Your task to perform on an android device: turn off javascript in the chrome app Image 0: 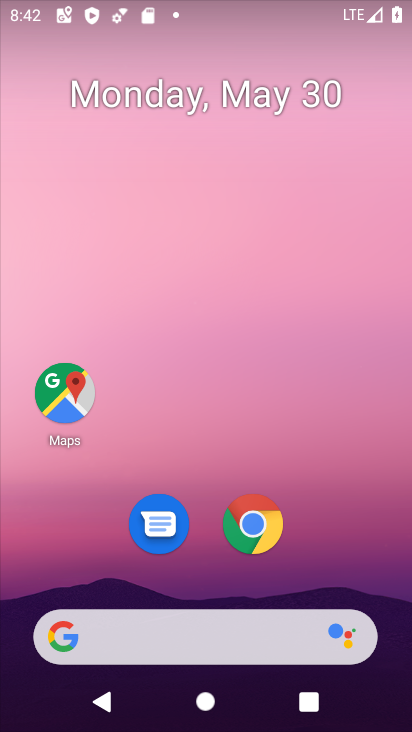
Step 0: click (247, 526)
Your task to perform on an android device: turn off javascript in the chrome app Image 1: 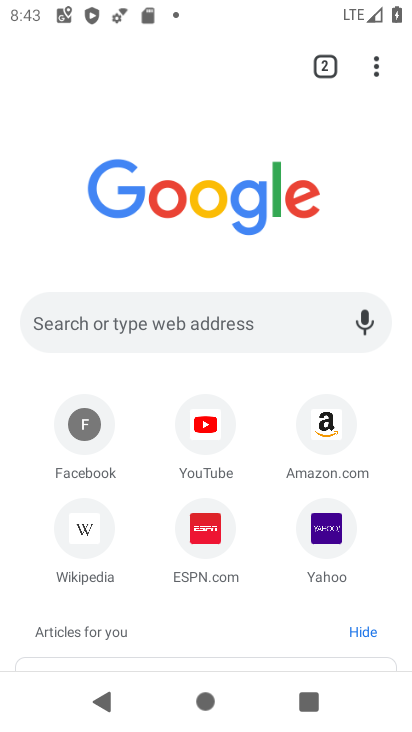
Step 1: click (376, 68)
Your task to perform on an android device: turn off javascript in the chrome app Image 2: 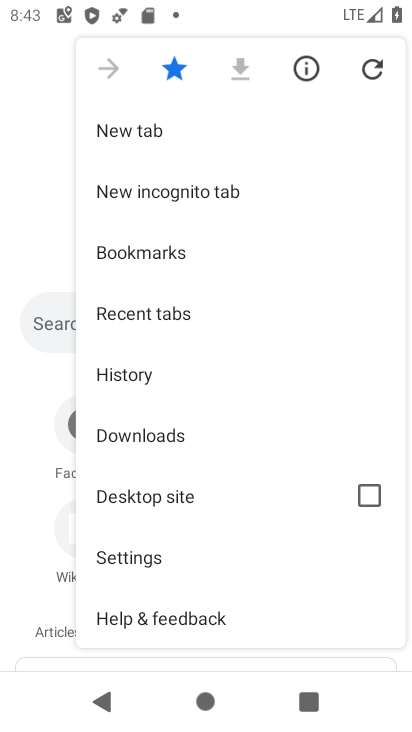
Step 2: click (173, 566)
Your task to perform on an android device: turn off javascript in the chrome app Image 3: 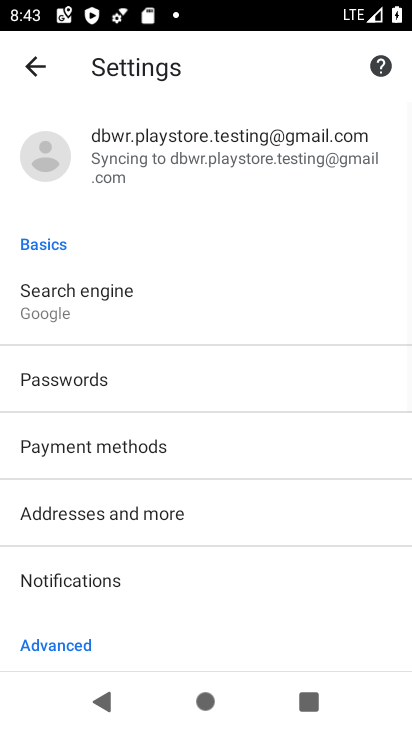
Step 3: drag from (218, 517) to (255, 150)
Your task to perform on an android device: turn off javascript in the chrome app Image 4: 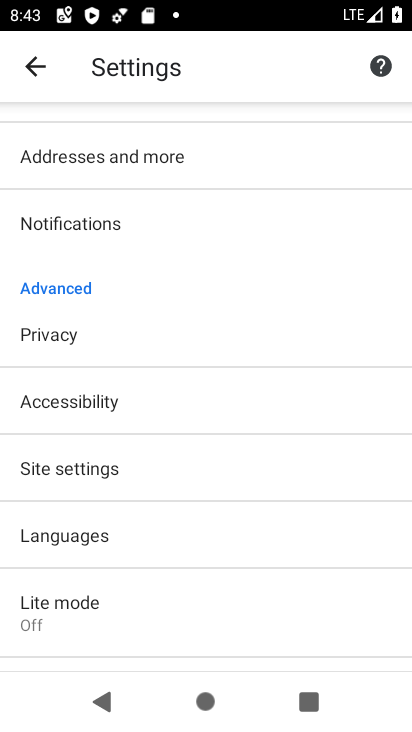
Step 4: click (151, 461)
Your task to perform on an android device: turn off javascript in the chrome app Image 5: 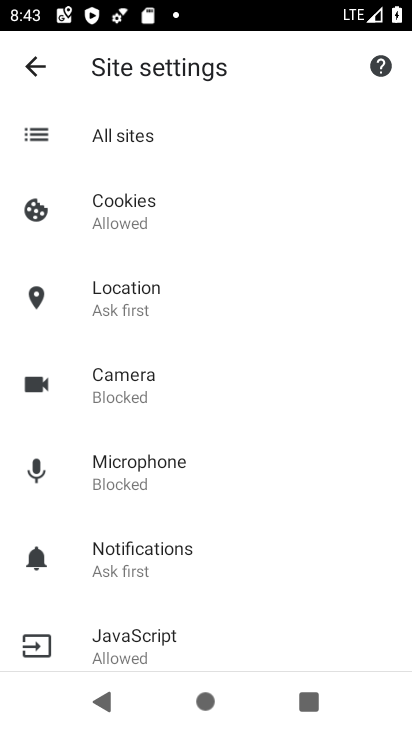
Step 5: click (181, 616)
Your task to perform on an android device: turn off javascript in the chrome app Image 6: 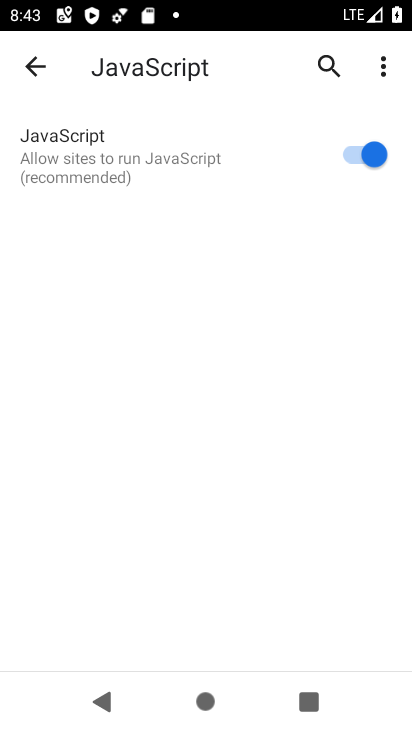
Step 6: click (368, 157)
Your task to perform on an android device: turn off javascript in the chrome app Image 7: 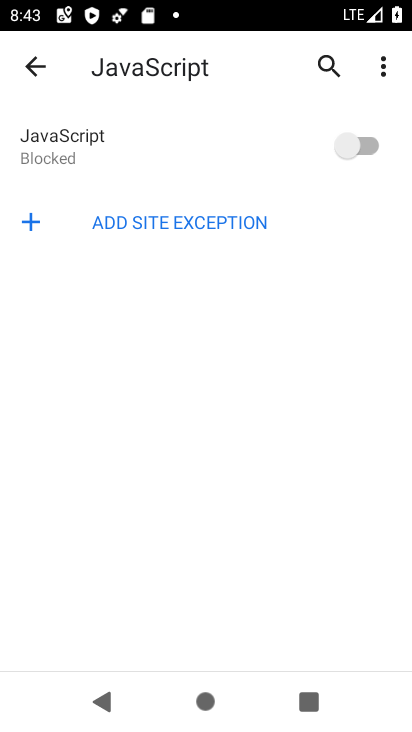
Step 7: task complete